Your task to perform on an android device: Go to Android settings Image 0: 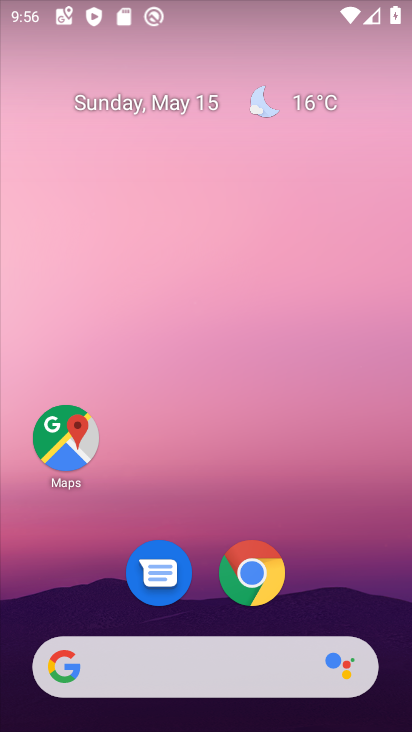
Step 0: press home button
Your task to perform on an android device: Go to Android settings Image 1: 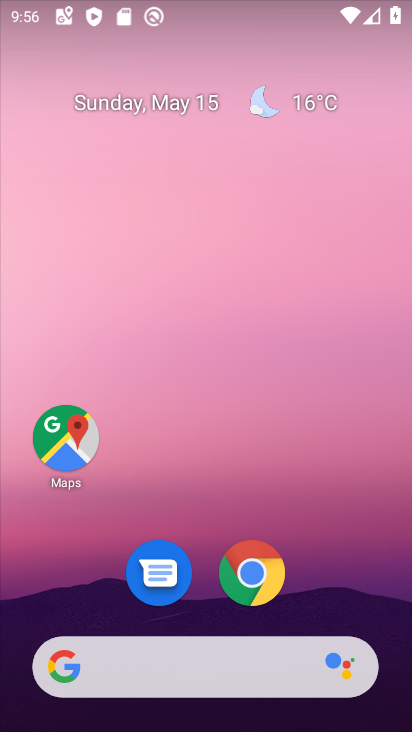
Step 1: drag from (361, 598) to (379, 16)
Your task to perform on an android device: Go to Android settings Image 2: 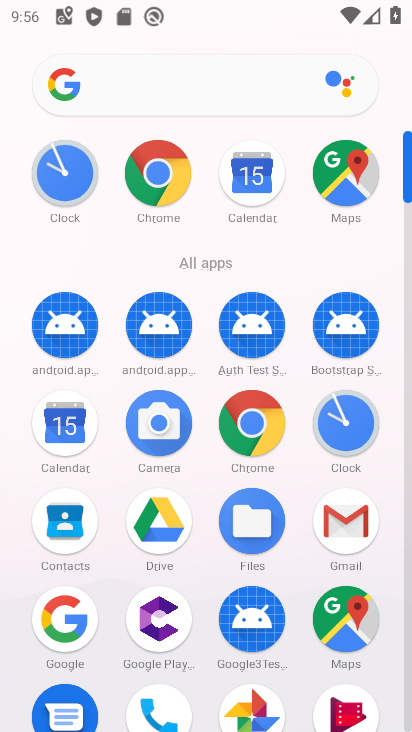
Step 2: click (405, 720)
Your task to perform on an android device: Go to Android settings Image 3: 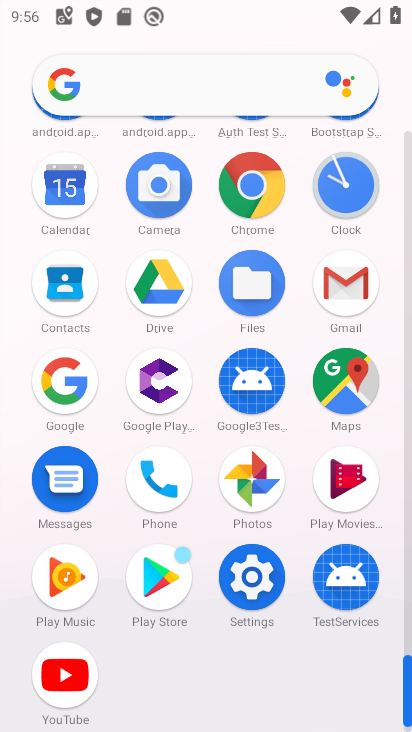
Step 3: click (263, 581)
Your task to perform on an android device: Go to Android settings Image 4: 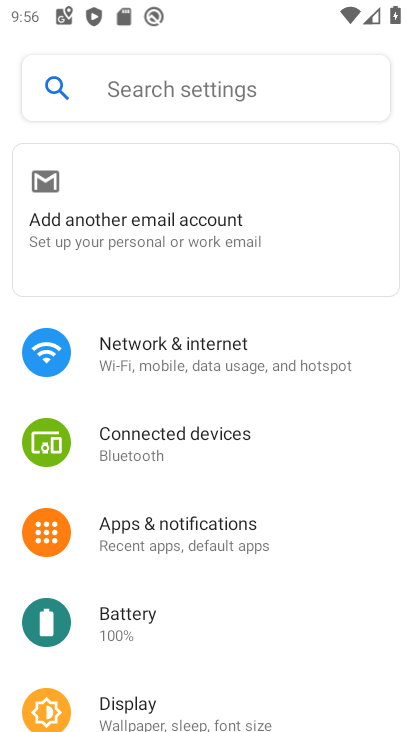
Step 4: drag from (237, 547) to (257, 100)
Your task to perform on an android device: Go to Android settings Image 5: 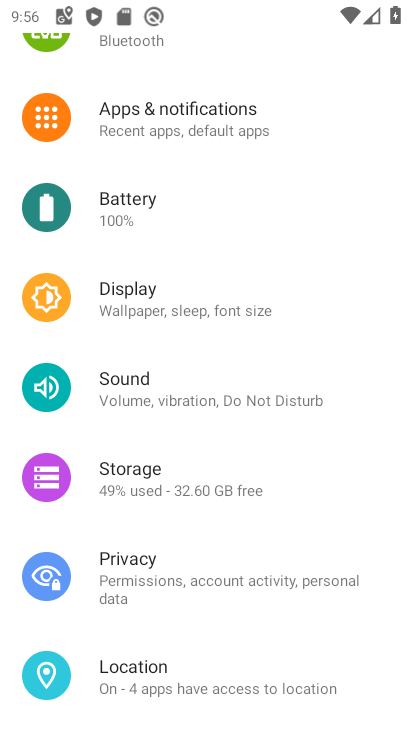
Step 5: click (269, 111)
Your task to perform on an android device: Go to Android settings Image 6: 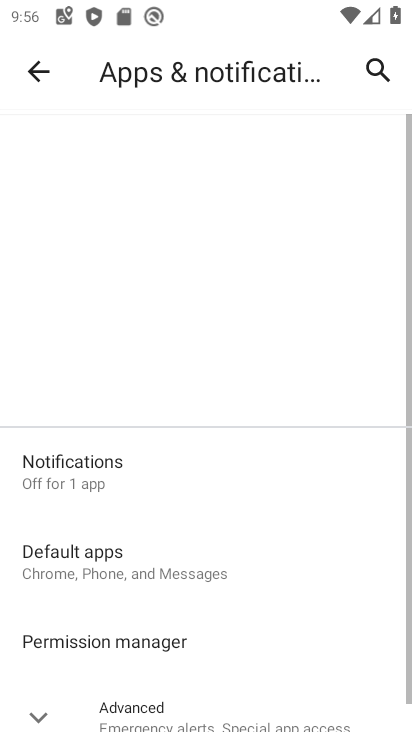
Step 6: drag from (237, 540) to (239, 385)
Your task to perform on an android device: Go to Android settings Image 7: 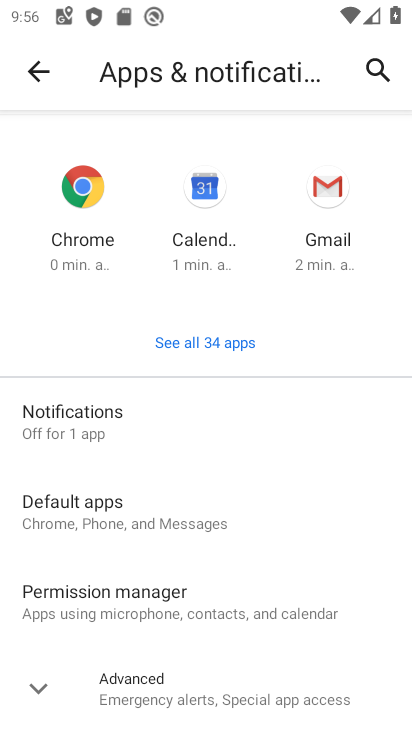
Step 7: click (27, 82)
Your task to perform on an android device: Go to Android settings Image 8: 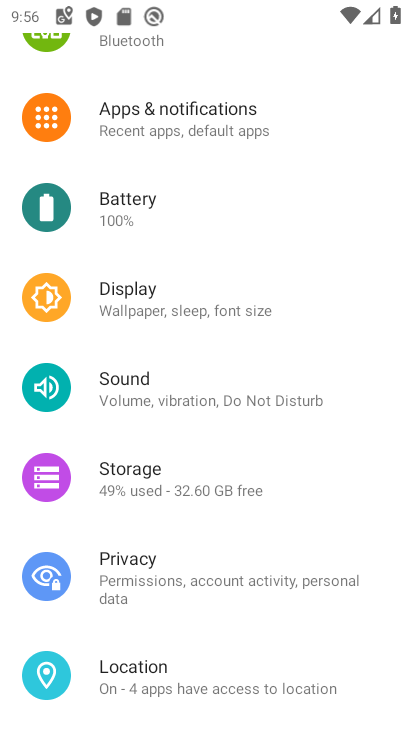
Step 8: drag from (221, 523) to (276, 68)
Your task to perform on an android device: Go to Android settings Image 9: 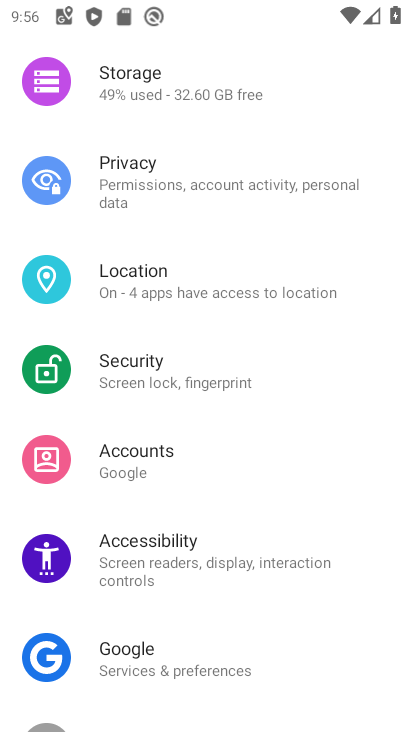
Step 9: drag from (216, 648) to (347, 82)
Your task to perform on an android device: Go to Android settings Image 10: 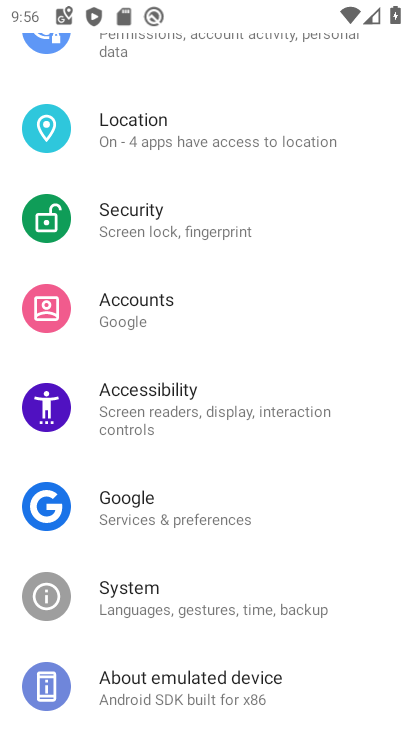
Step 10: click (160, 700)
Your task to perform on an android device: Go to Android settings Image 11: 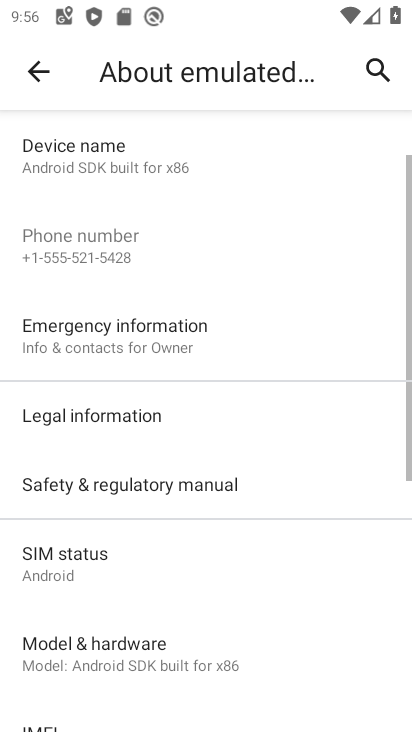
Step 11: drag from (132, 547) to (298, 175)
Your task to perform on an android device: Go to Android settings Image 12: 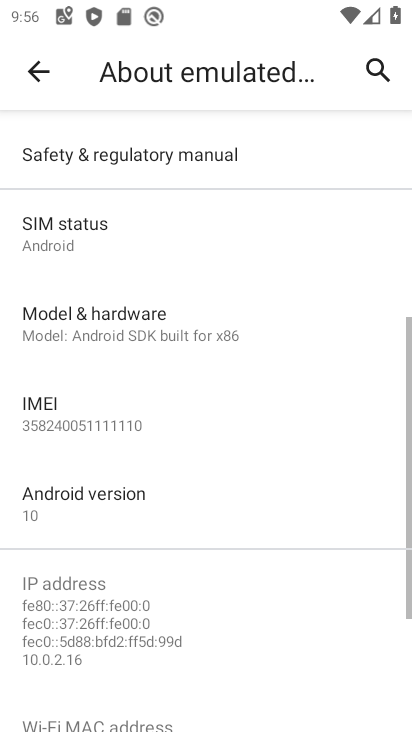
Step 12: click (170, 506)
Your task to perform on an android device: Go to Android settings Image 13: 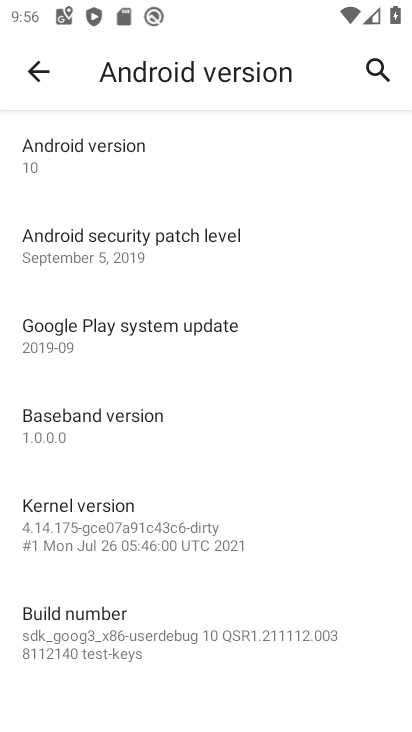
Step 13: task complete